Your task to perform on an android device: Search for Mexican restaurants on Maps Image 0: 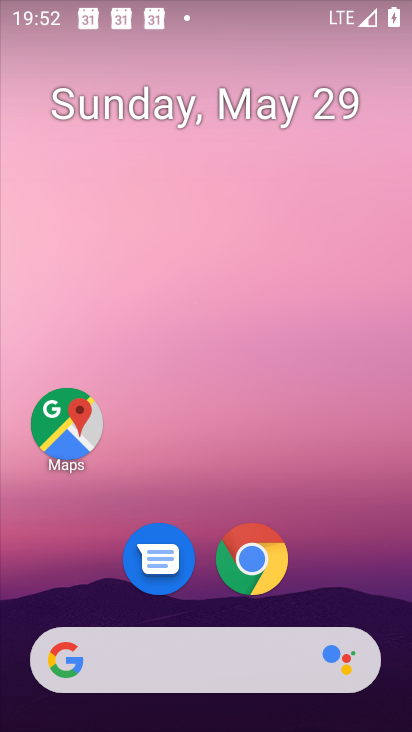
Step 0: drag from (336, 589) to (344, 386)
Your task to perform on an android device: Search for Mexican restaurants on Maps Image 1: 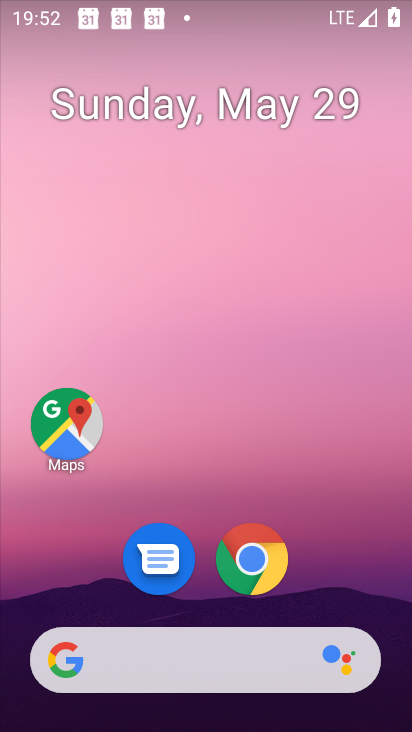
Step 1: drag from (372, 598) to (364, 324)
Your task to perform on an android device: Search for Mexican restaurants on Maps Image 2: 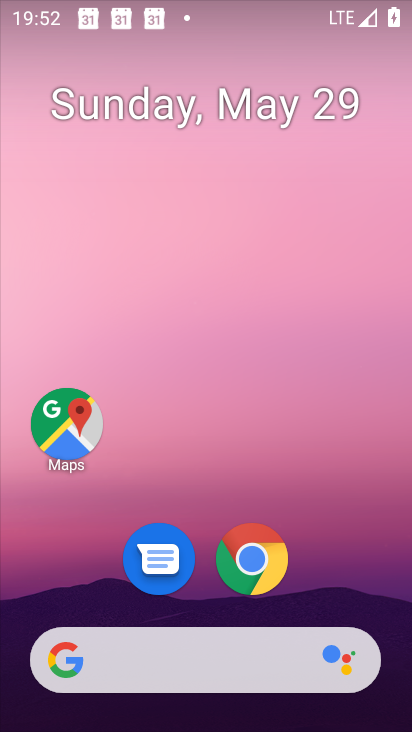
Step 2: drag from (351, 588) to (362, 223)
Your task to perform on an android device: Search for Mexican restaurants on Maps Image 3: 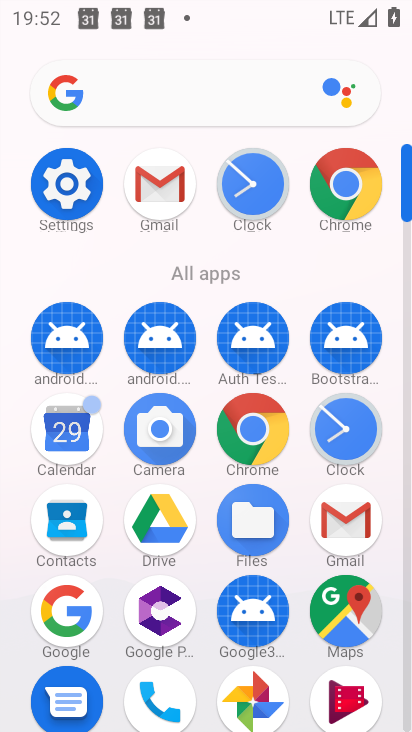
Step 3: click (377, 607)
Your task to perform on an android device: Search for Mexican restaurants on Maps Image 4: 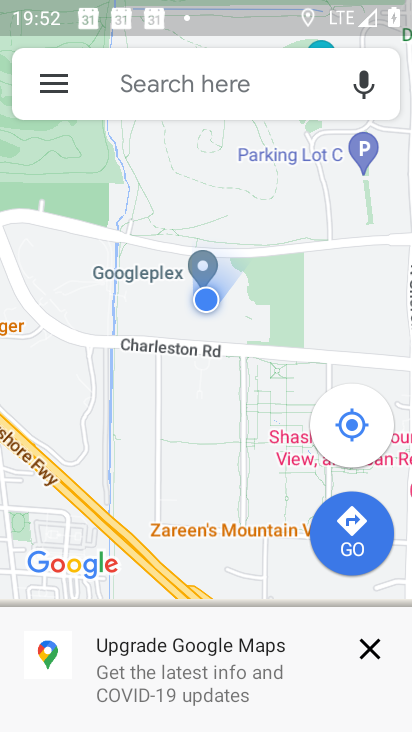
Step 4: click (196, 79)
Your task to perform on an android device: Search for Mexican restaurants on Maps Image 5: 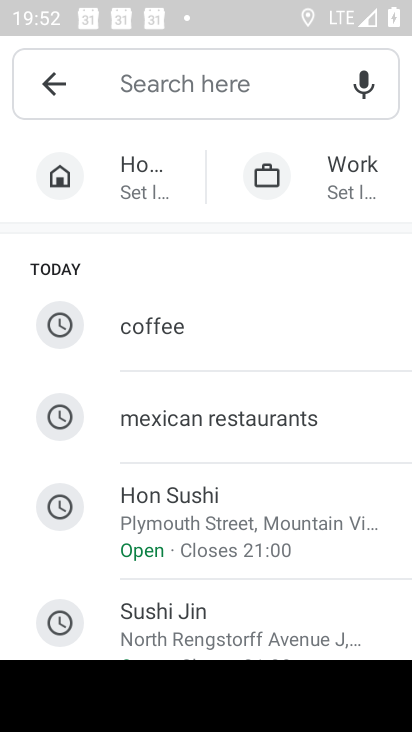
Step 5: type "mecvian restaurants"
Your task to perform on an android device: Search for Mexican restaurants on Maps Image 6: 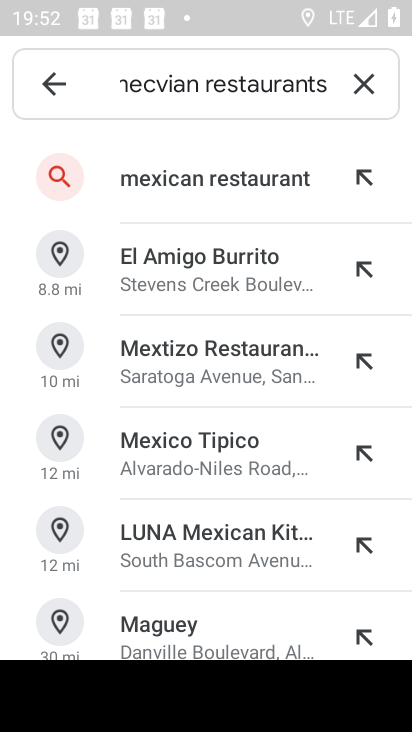
Step 6: click (303, 197)
Your task to perform on an android device: Search for Mexican restaurants on Maps Image 7: 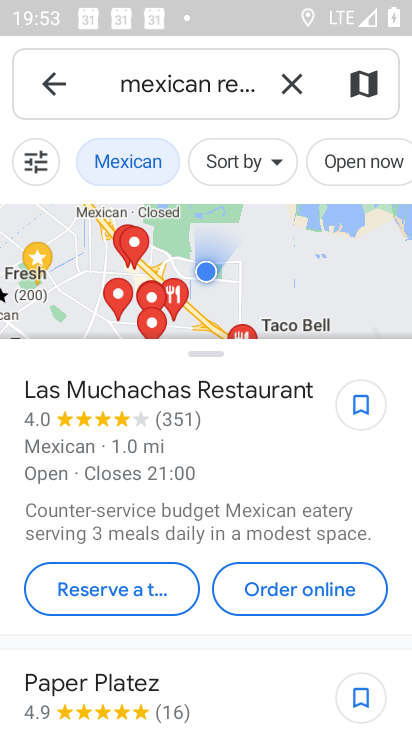
Step 7: task complete